Your task to perform on an android device: When is my next appointment? Image 0: 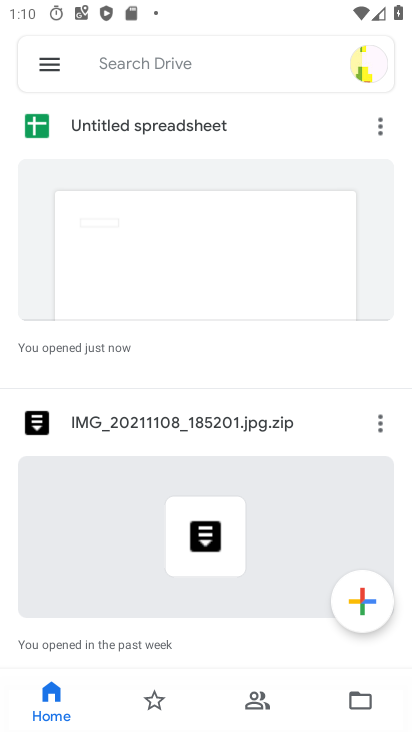
Step 0: press home button
Your task to perform on an android device: When is my next appointment? Image 1: 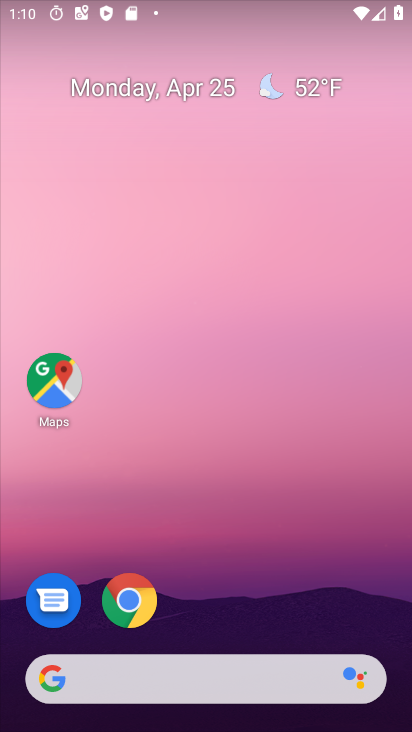
Step 1: drag from (148, 677) to (276, 146)
Your task to perform on an android device: When is my next appointment? Image 2: 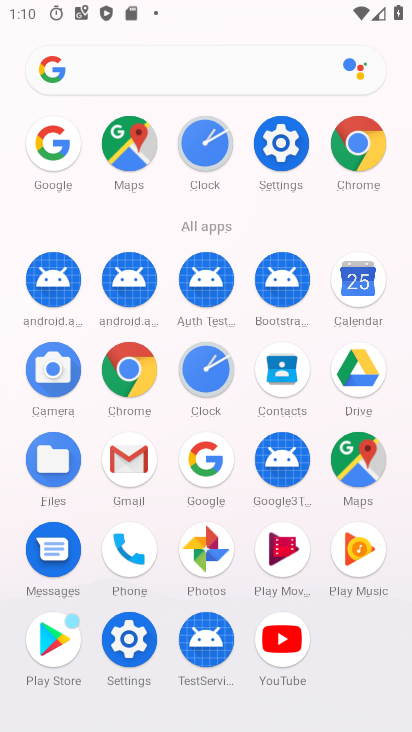
Step 2: click (362, 275)
Your task to perform on an android device: When is my next appointment? Image 3: 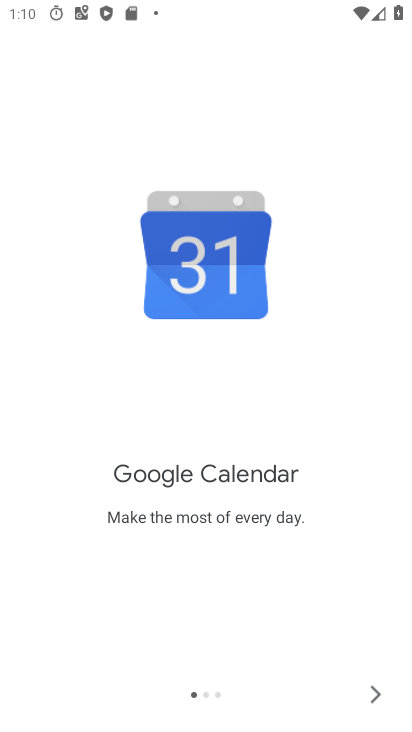
Step 3: click (380, 689)
Your task to perform on an android device: When is my next appointment? Image 4: 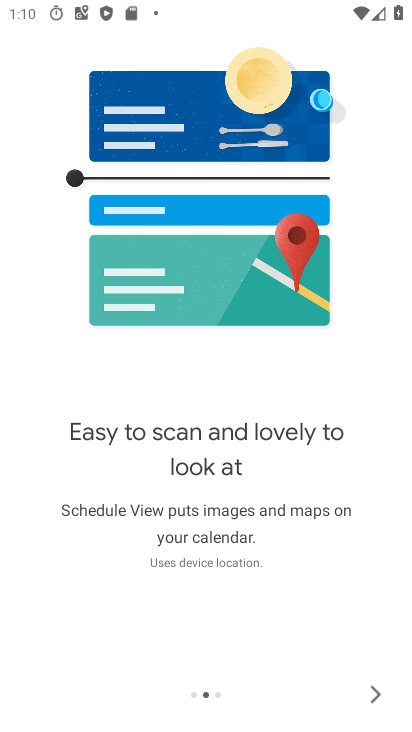
Step 4: click (380, 689)
Your task to perform on an android device: When is my next appointment? Image 5: 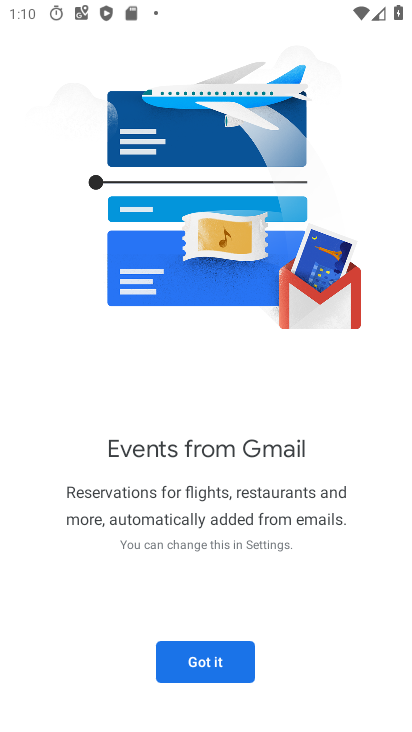
Step 5: click (205, 663)
Your task to perform on an android device: When is my next appointment? Image 6: 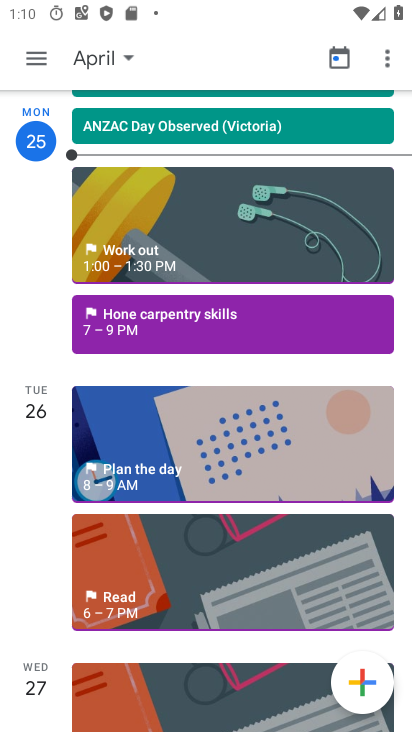
Step 6: click (230, 328)
Your task to perform on an android device: When is my next appointment? Image 7: 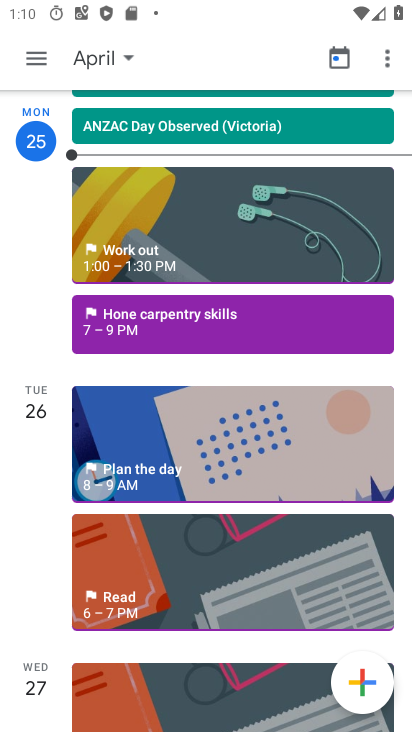
Step 7: click (217, 317)
Your task to perform on an android device: When is my next appointment? Image 8: 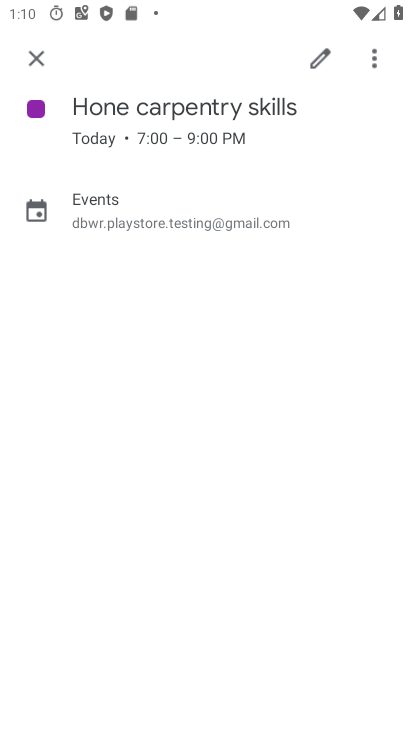
Step 8: task complete